Your task to perform on an android device: Go to display settings Image 0: 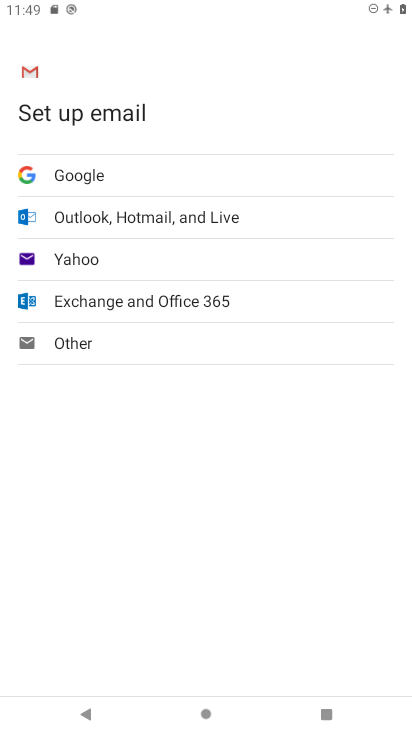
Step 0: press home button
Your task to perform on an android device: Go to display settings Image 1: 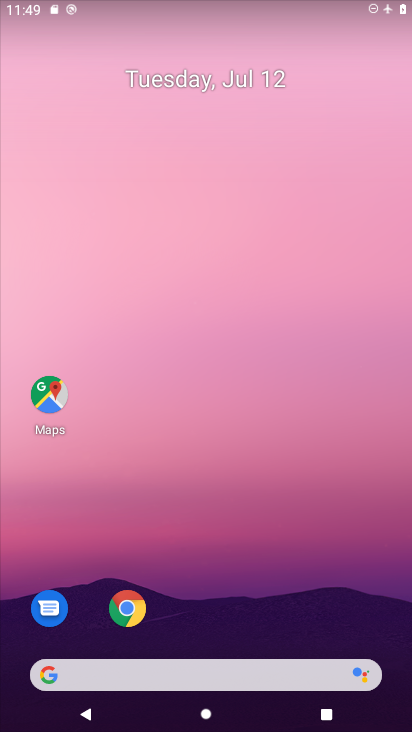
Step 1: drag from (240, 706) to (236, 44)
Your task to perform on an android device: Go to display settings Image 2: 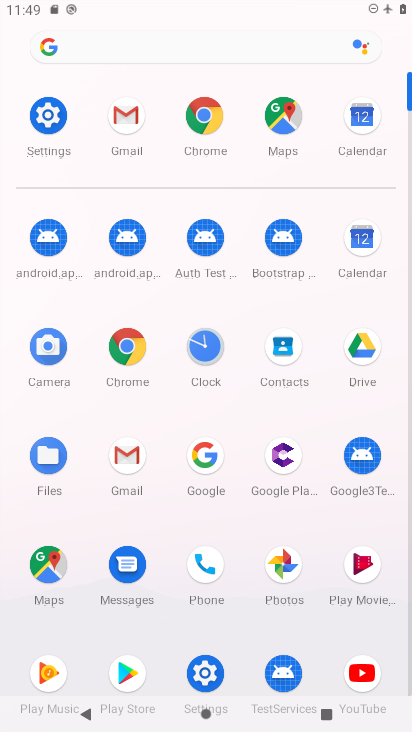
Step 2: click (51, 119)
Your task to perform on an android device: Go to display settings Image 3: 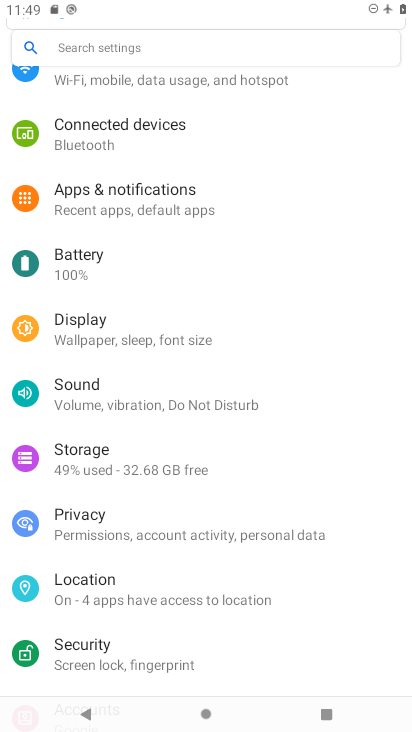
Step 3: click (75, 324)
Your task to perform on an android device: Go to display settings Image 4: 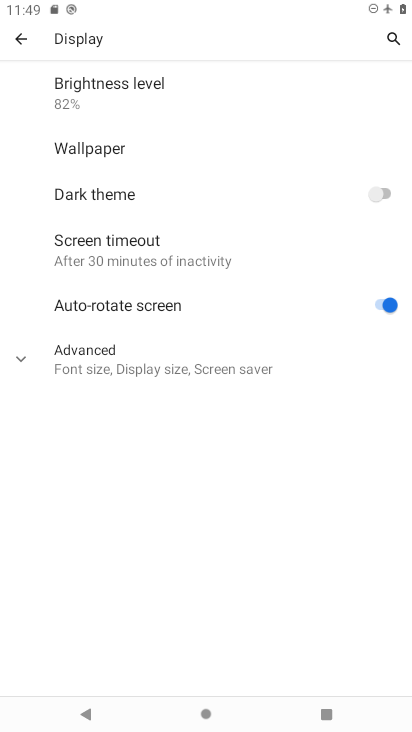
Step 4: task complete